Your task to perform on an android device: change keyboard looks Image 0: 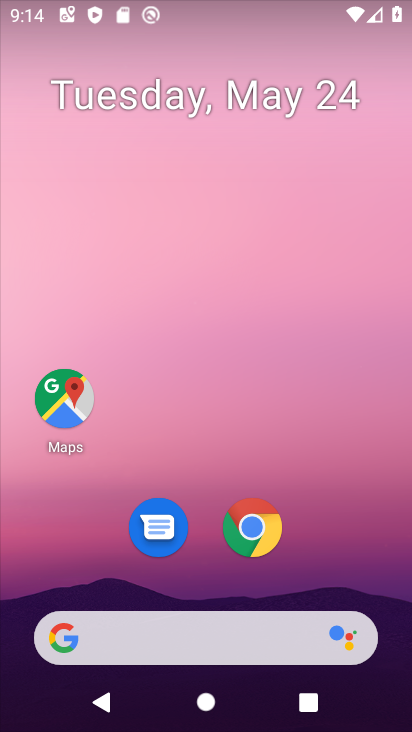
Step 0: drag from (195, 533) to (216, 76)
Your task to perform on an android device: change keyboard looks Image 1: 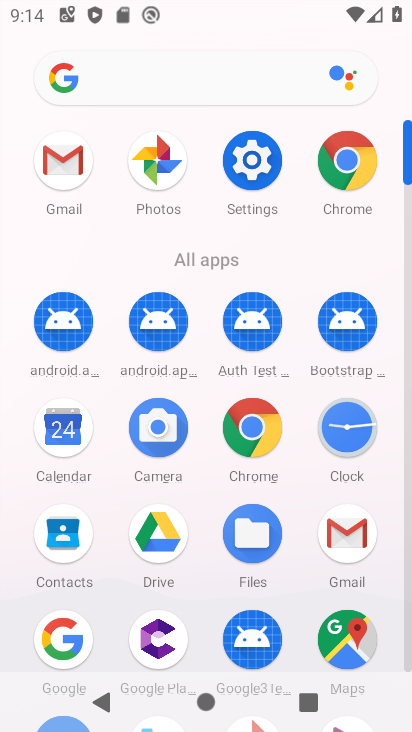
Step 1: click (248, 139)
Your task to perform on an android device: change keyboard looks Image 2: 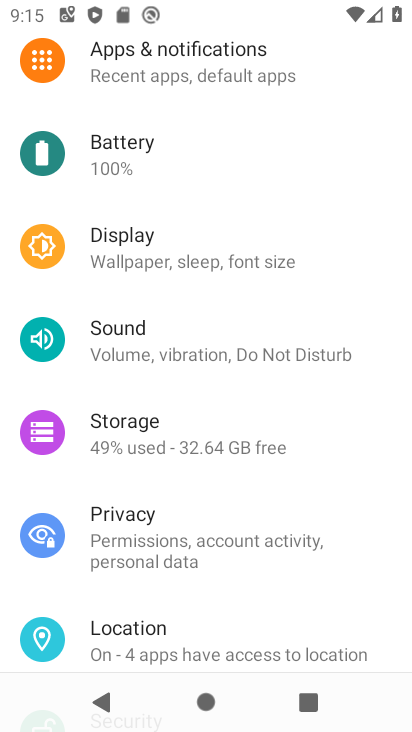
Step 2: drag from (178, 565) to (203, 69)
Your task to perform on an android device: change keyboard looks Image 3: 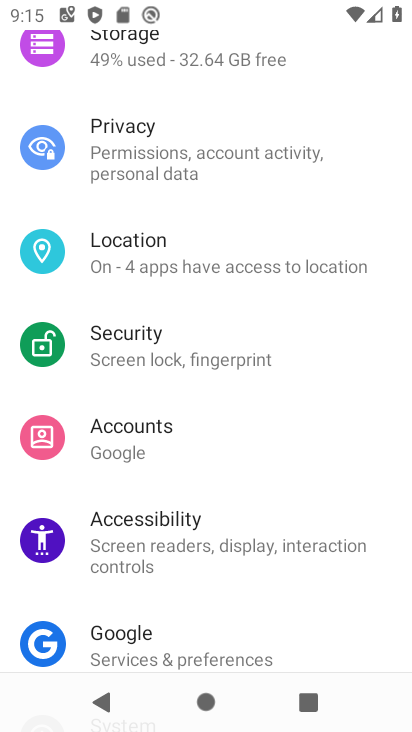
Step 3: drag from (169, 575) to (172, 270)
Your task to perform on an android device: change keyboard looks Image 4: 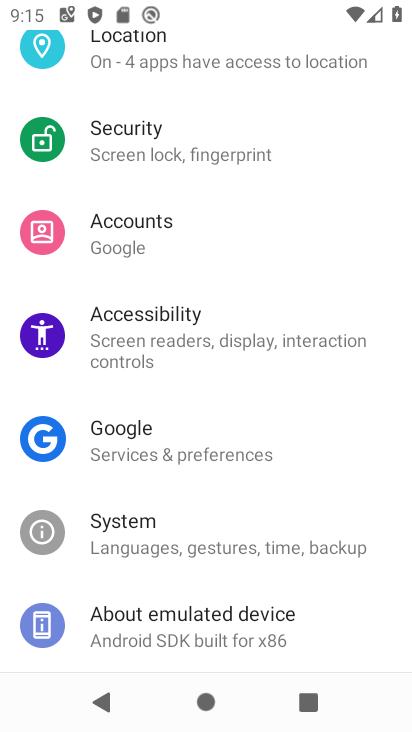
Step 4: click (166, 531)
Your task to perform on an android device: change keyboard looks Image 5: 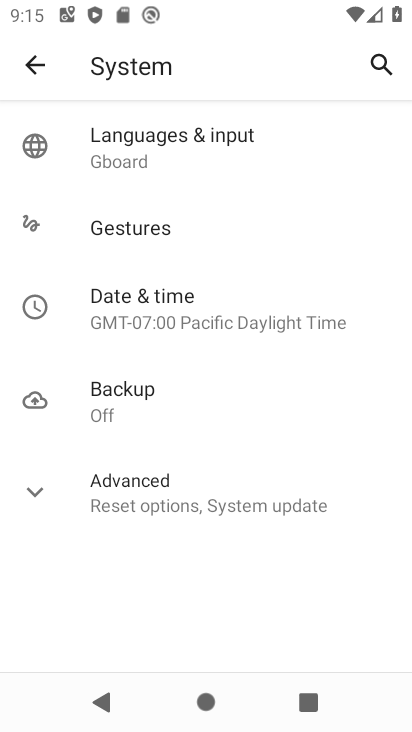
Step 5: click (202, 162)
Your task to perform on an android device: change keyboard looks Image 6: 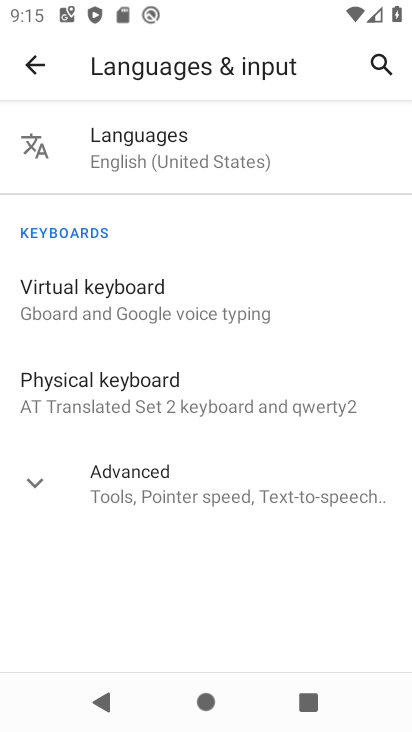
Step 6: click (195, 292)
Your task to perform on an android device: change keyboard looks Image 7: 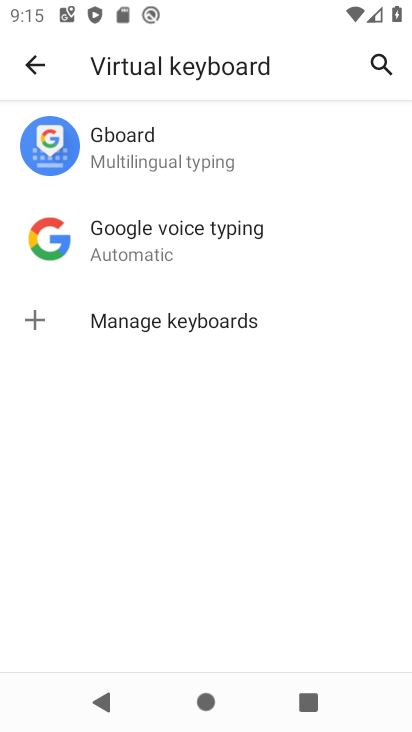
Step 7: click (187, 166)
Your task to perform on an android device: change keyboard looks Image 8: 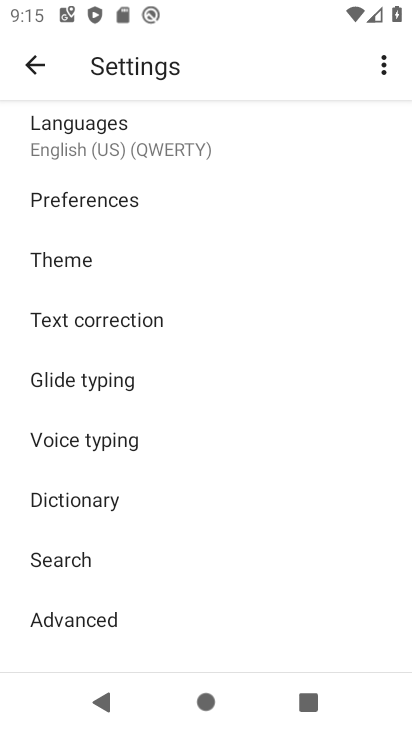
Step 8: click (79, 257)
Your task to perform on an android device: change keyboard looks Image 9: 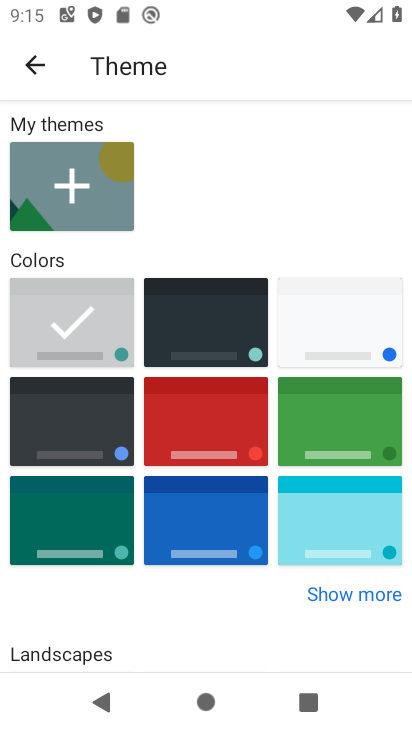
Step 9: click (259, 354)
Your task to perform on an android device: change keyboard looks Image 10: 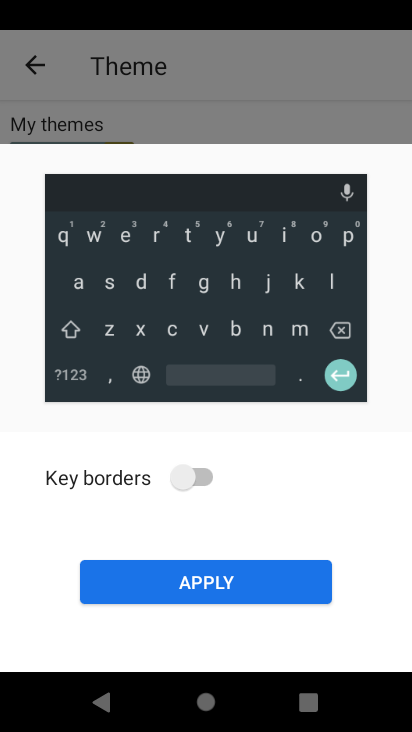
Step 10: click (219, 575)
Your task to perform on an android device: change keyboard looks Image 11: 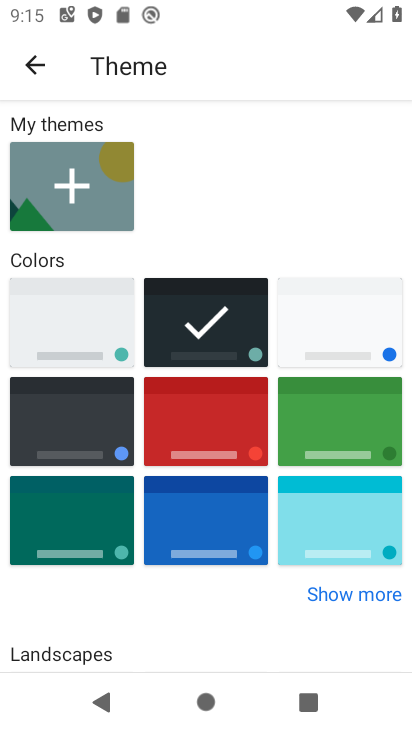
Step 11: task complete